Your task to perform on an android device: Open Google Chrome and click the shortcut for Amazon.com Image 0: 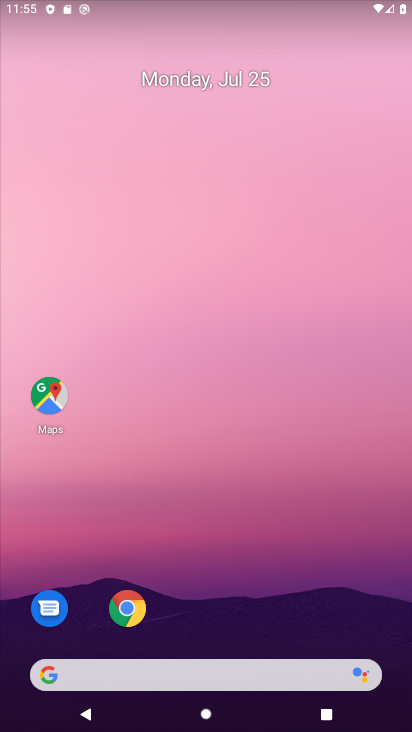
Step 0: click (134, 627)
Your task to perform on an android device: Open Google Chrome and click the shortcut for Amazon.com Image 1: 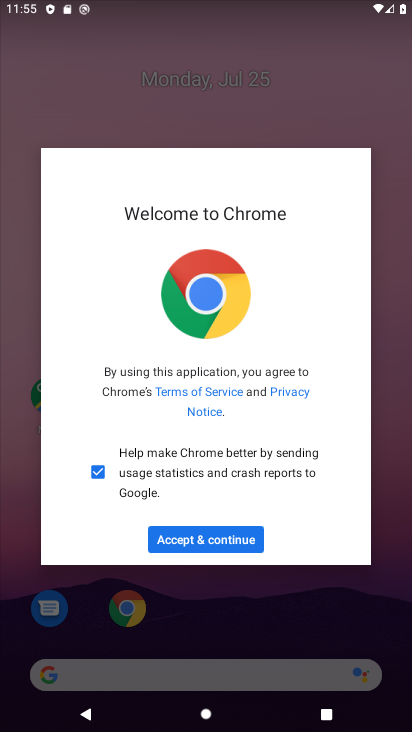
Step 1: click (160, 548)
Your task to perform on an android device: Open Google Chrome and click the shortcut for Amazon.com Image 2: 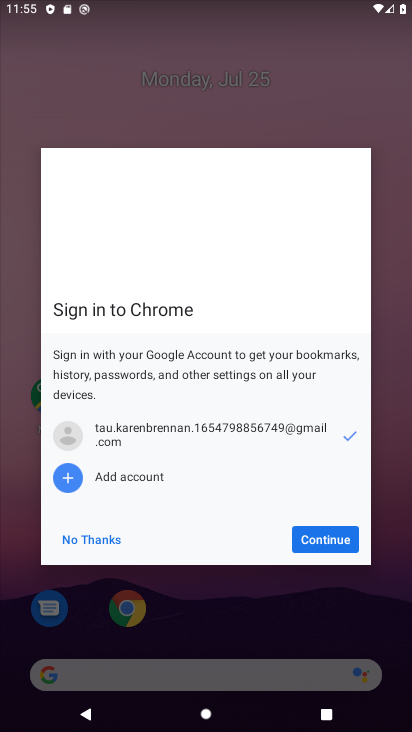
Step 2: click (343, 542)
Your task to perform on an android device: Open Google Chrome and click the shortcut for Amazon.com Image 3: 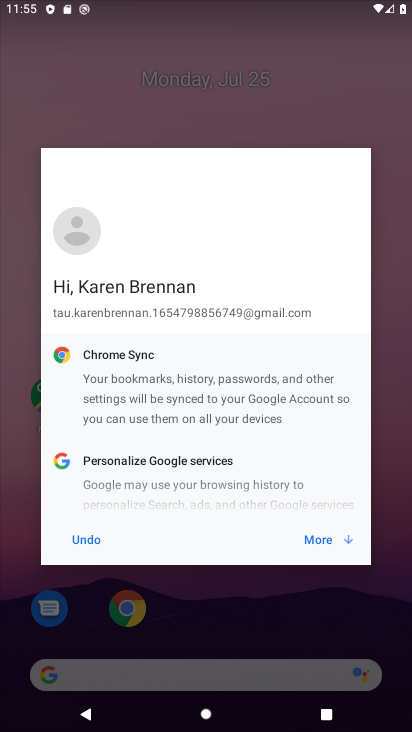
Step 3: click (343, 542)
Your task to perform on an android device: Open Google Chrome and click the shortcut for Amazon.com Image 4: 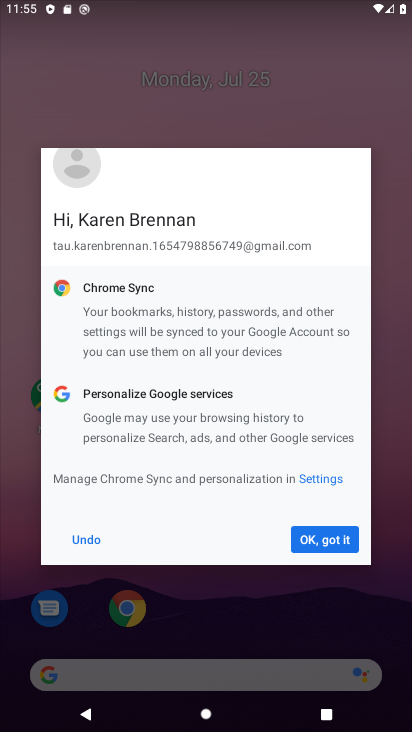
Step 4: click (343, 542)
Your task to perform on an android device: Open Google Chrome and click the shortcut for Amazon.com Image 5: 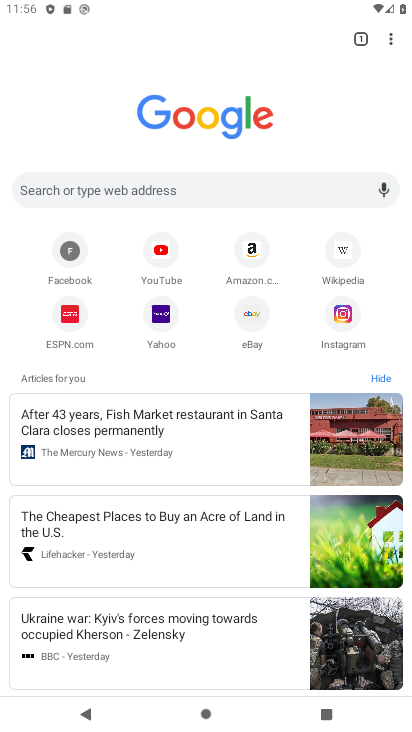
Step 5: click (264, 261)
Your task to perform on an android device: Open Google Chrome and click the shortcut for Amazon.com Image 6: 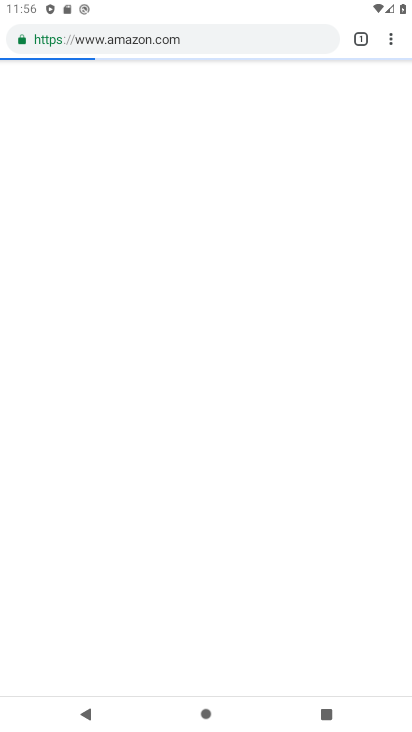
Step 6: task complete